Your task to perform on an android device: manage bookmarks in the chrome app Image 0: 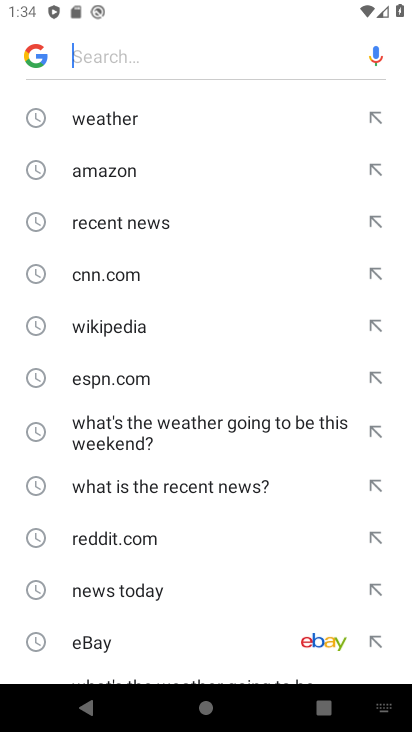
Step 0: press home button
Your task to perform on an android device: manage bookmarks in the chrome app Image 1: 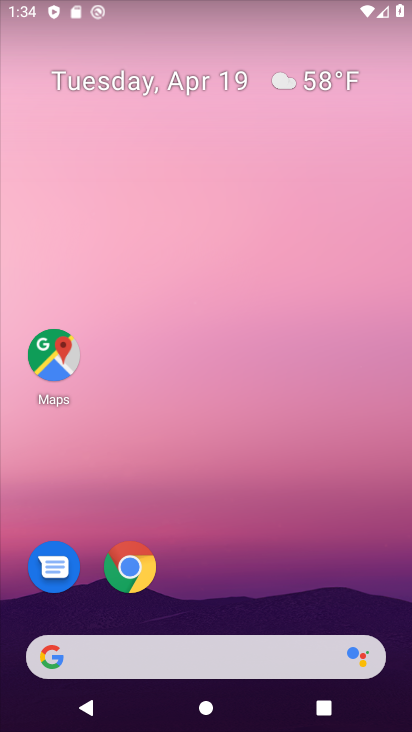
Step 1: click (129, 568)
Your task to perform on an android device: manage bookmarks in the chrome app Image 2: 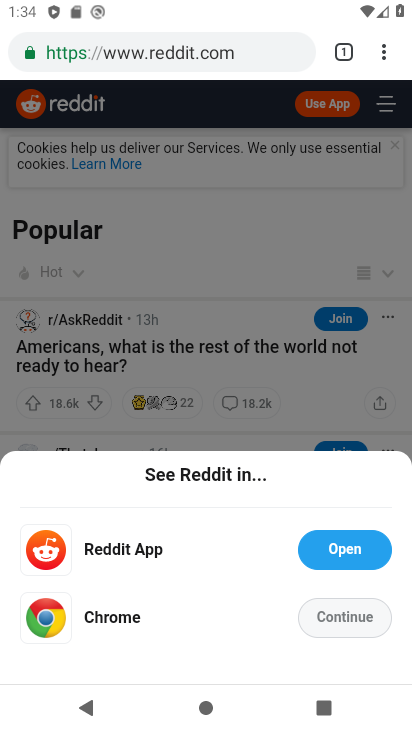
Step 2: click (383, 52)
Your task to perform on an android device: manage bookmarks in the chrome app Image 3: 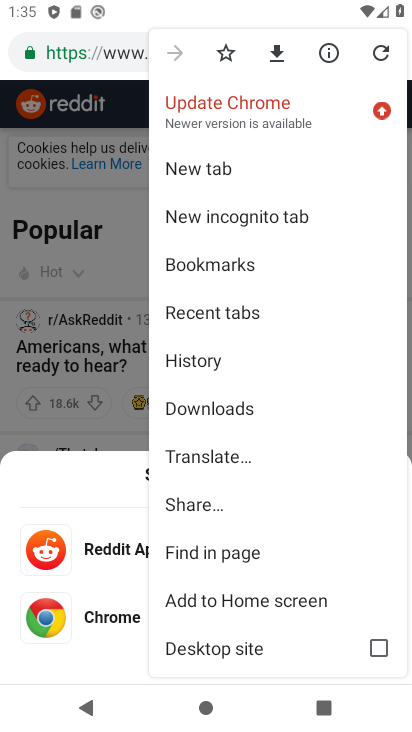
Step 3: click (197, 262)
Your task to perform on an android device: manage bookmarks in the chrome app Image 4: 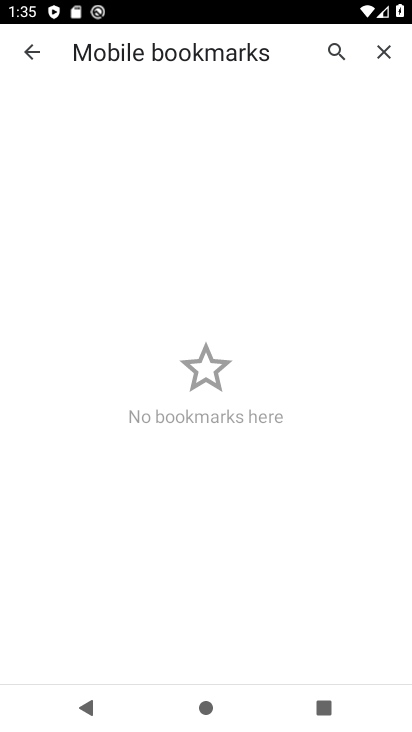
Step 4: task complete